Your task to perform on an android device: Open Maps and search for coffee Image 0: 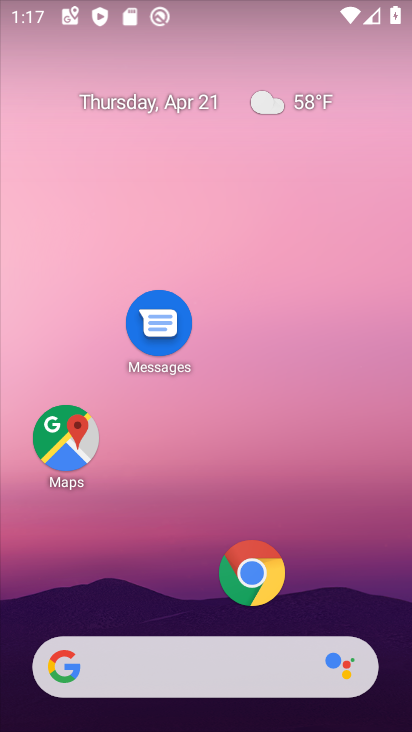
Step 0: press home button
Your task to perform on an android device: Open Maps and search for coffee Image 1: 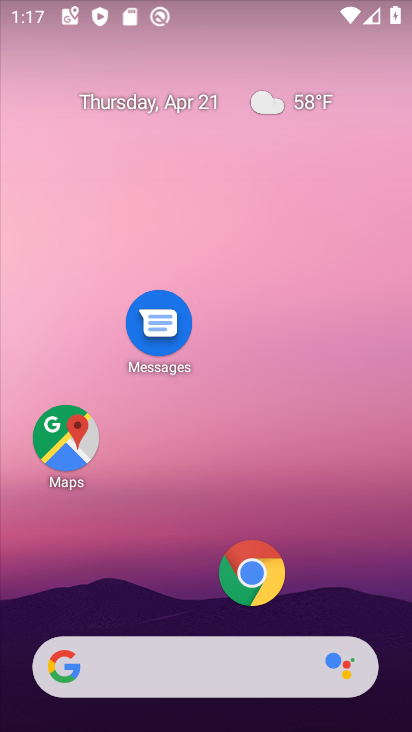
Step 1: click (69, 442)
Your task to perform on an android device: Open Maps and search for coffee Image 2: 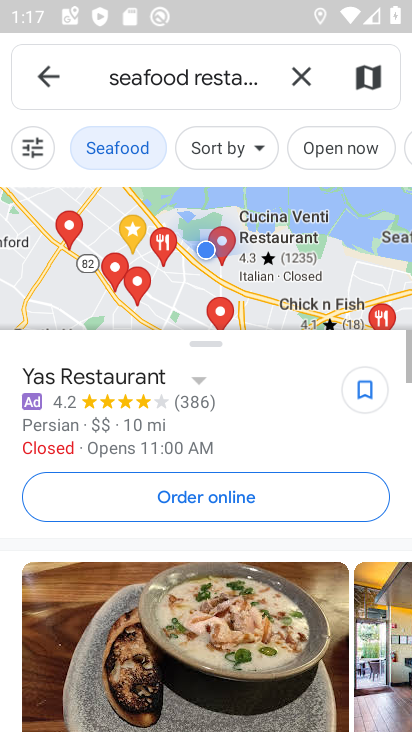
Step 2: click (303, 81)
Your task to perform on an android device: Open Maps and search for coffee Image 3: 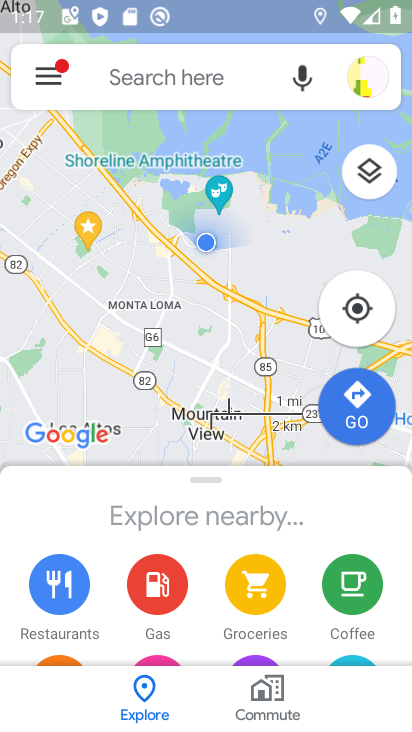
Step 3: click (192, 87)
Your task to perform on an android device: Open Maps and search for coffee Image 4: 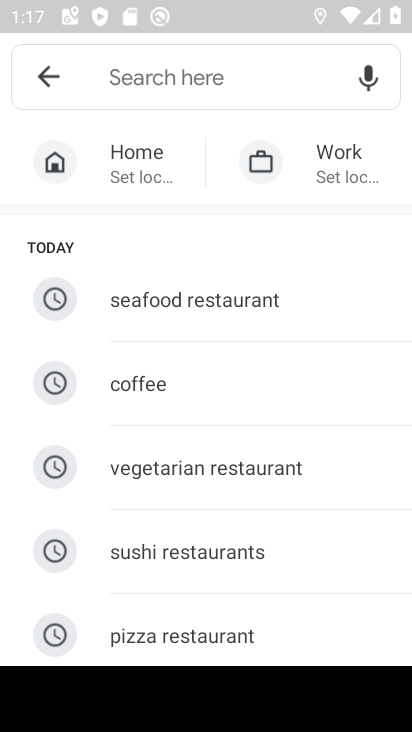
Step 4: click (141, 391)
Your task to perform on an android device: Open Maps and search for coffee Image 5: 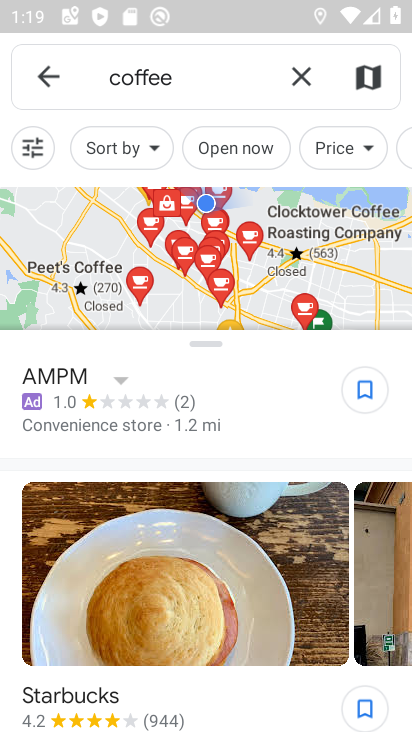
Step 5: task complete